Your task to perform on an android device: Go to Yahoo.com Image 0: 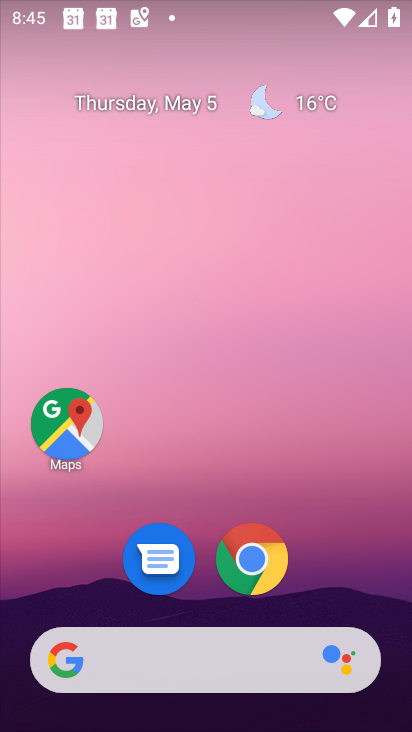
Step 0: click (252, 559)
Your task to perform on an android device: Go to Yahoo.com Image 1: 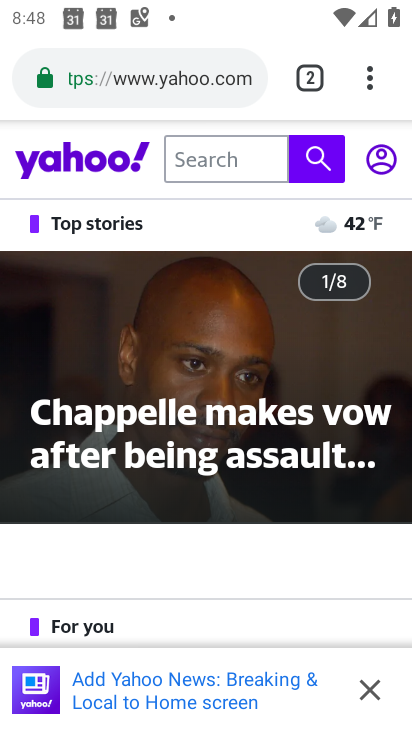
Step 1: task complete